Your task to perform on an android device: Open Google Maps and go to "Timeline" Image 0: 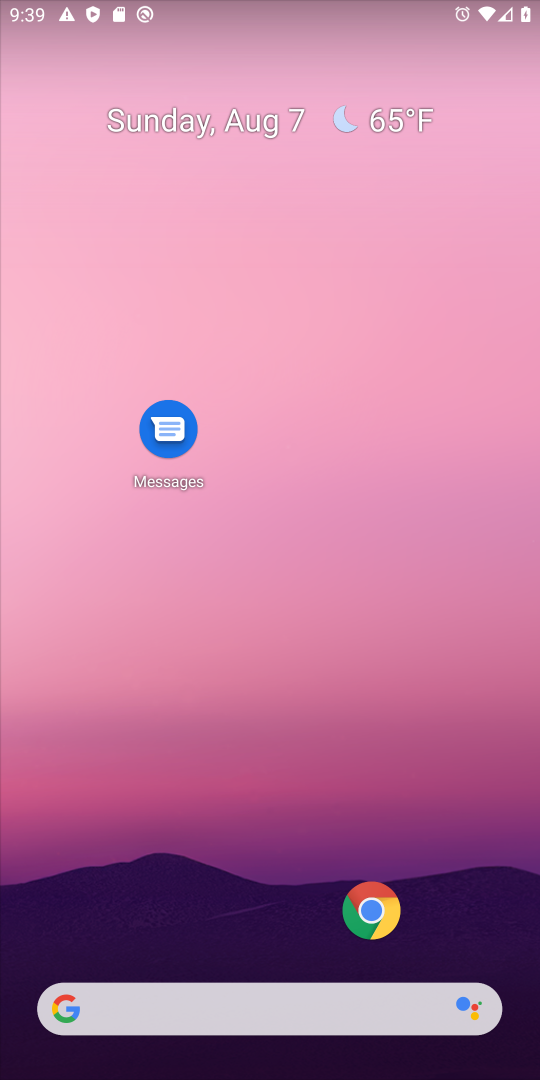
Step 0: drag from (194, 908) to (262, 230)
Your task to perform on an android device: Open Google Maps and go to "Timeline" Image 1: 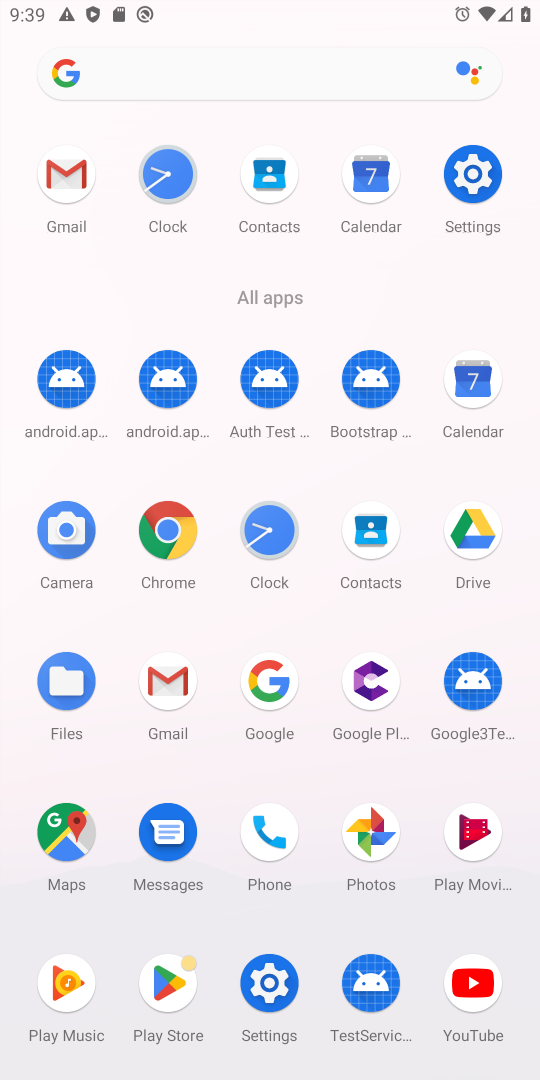
Step 1: click (46, 841)
Your task to perform on an android device: Open Google Maps and go to "Timeline" Image 2: 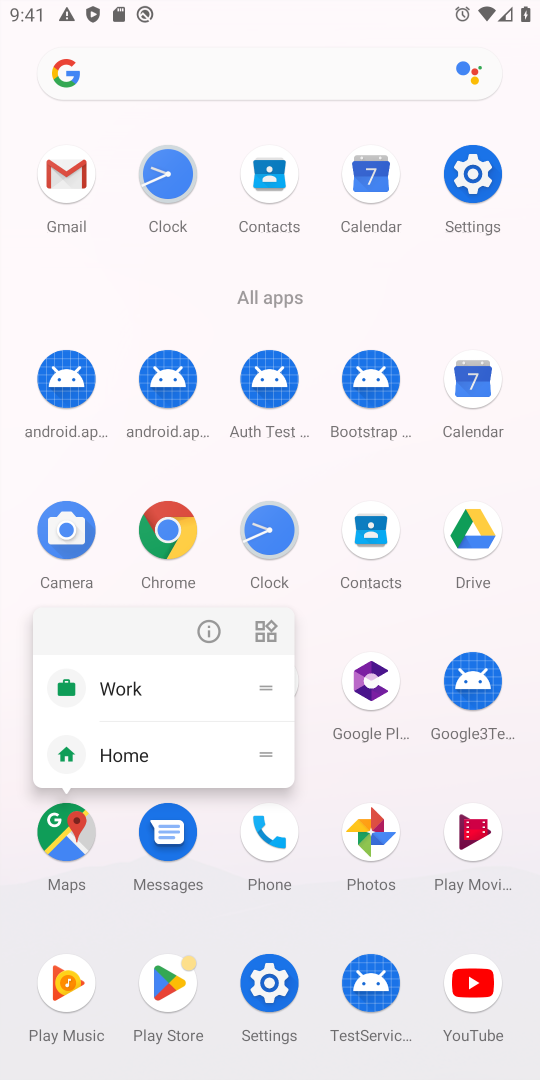
Step 2: click (83, 824)
Your task to perform on an android device: Open Google Maps and go to "Timeline" Image 3: 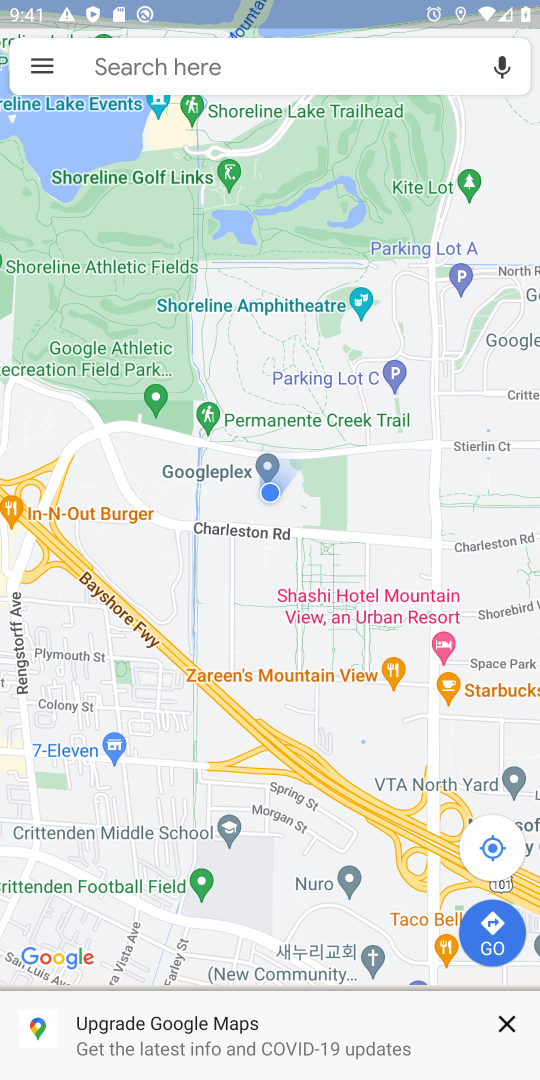
Step 3: click (44, 58)
Your task to perform on an android device: Open Google Maps and go to "Timeline" Image 4: 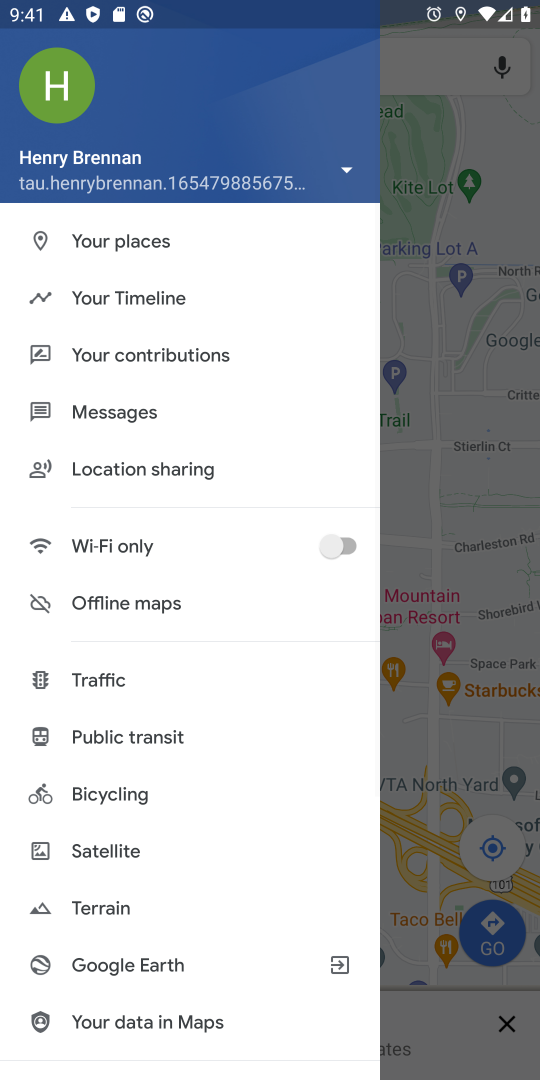
Step 4: click (123, 300)
Your task to perform on an android device: Open Google Maps and go to "Timeline" Image 5: 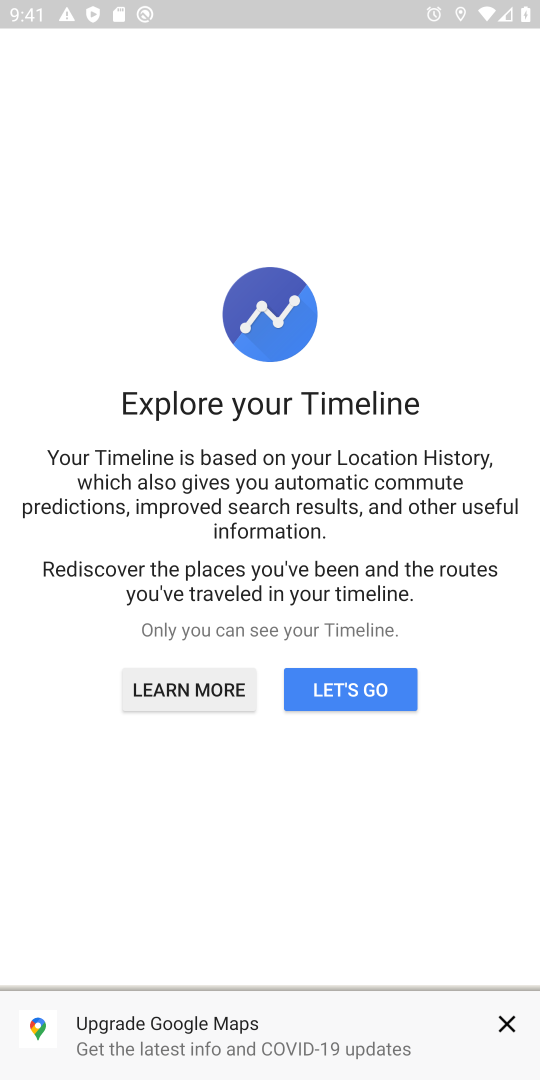
Step 5: click (385, 697)
Your task to perform on an android device: Open Google Maps and go to "Timeline" Image 6: 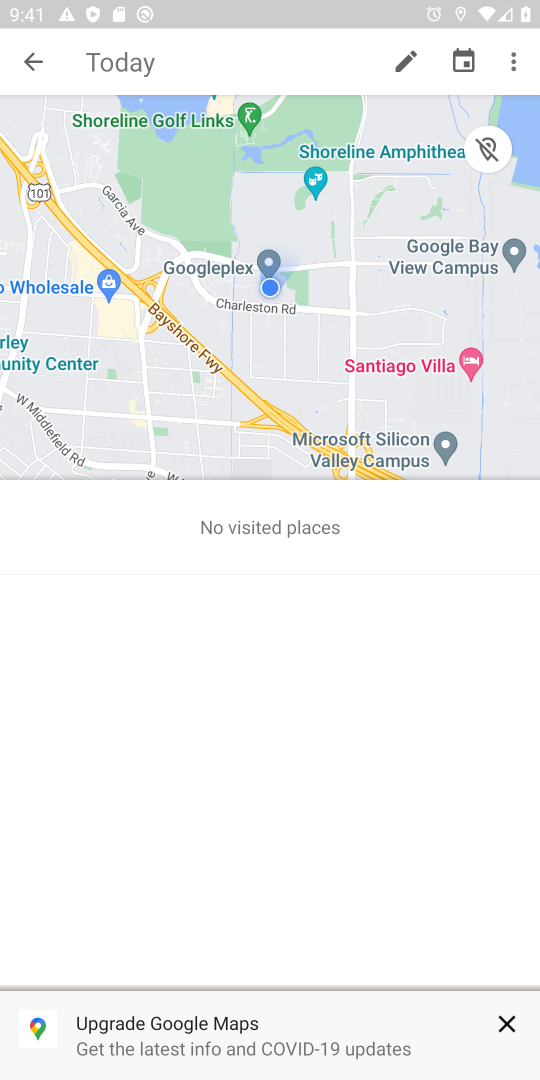
Step 6: task complete